Your task to perform on an android device: Google the capital of Colombia Image 0: 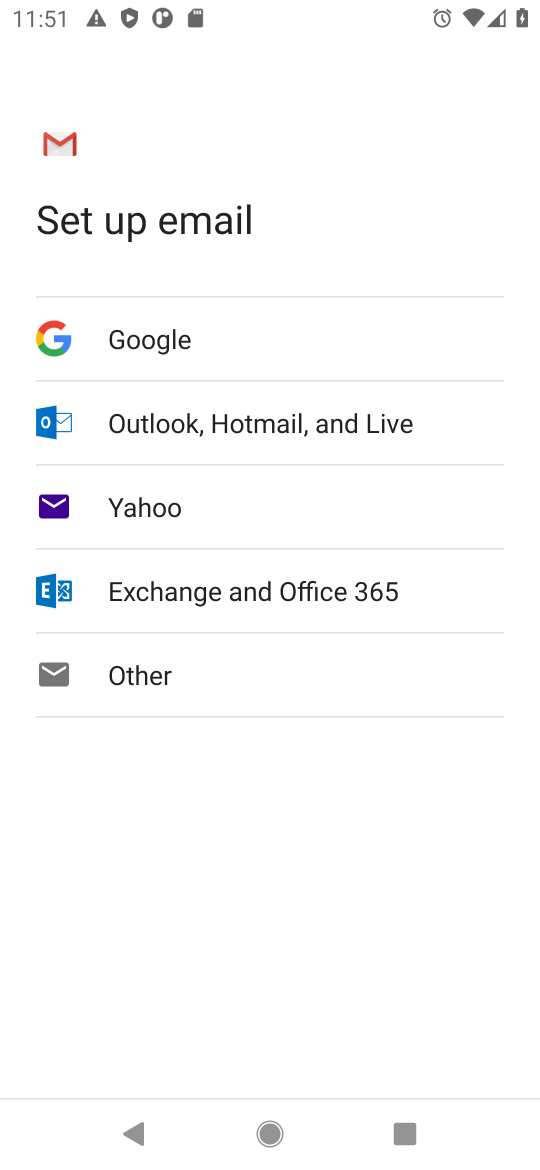
Step 0: press home button
Your task to perform on an android device: Google the capital of Colombia Image 1: 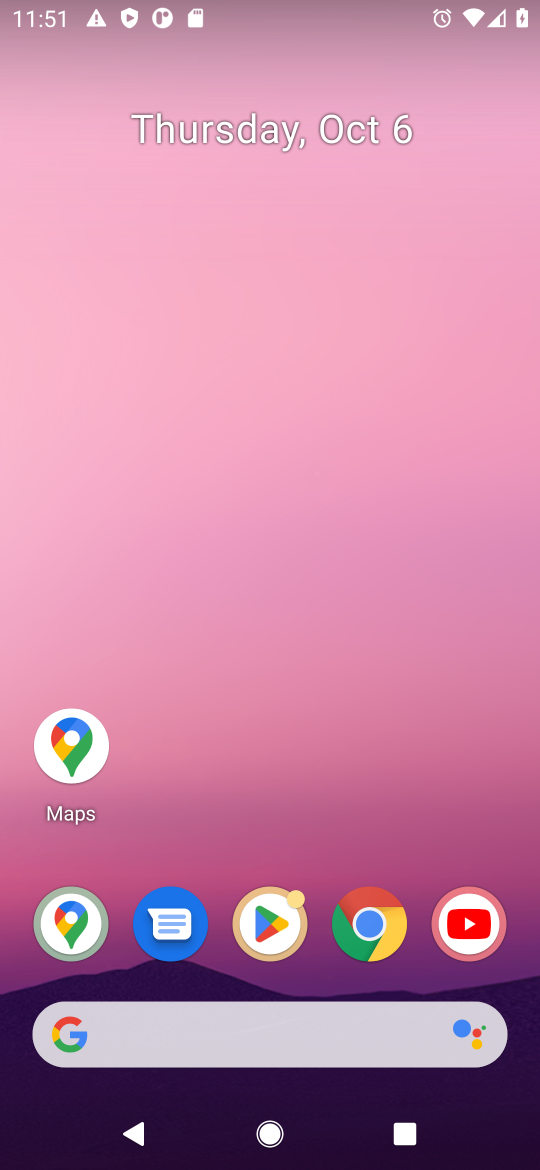
Step 1: click (364, 942)
Your task to perform on an android device: Google the capital of Colombia Image 2: 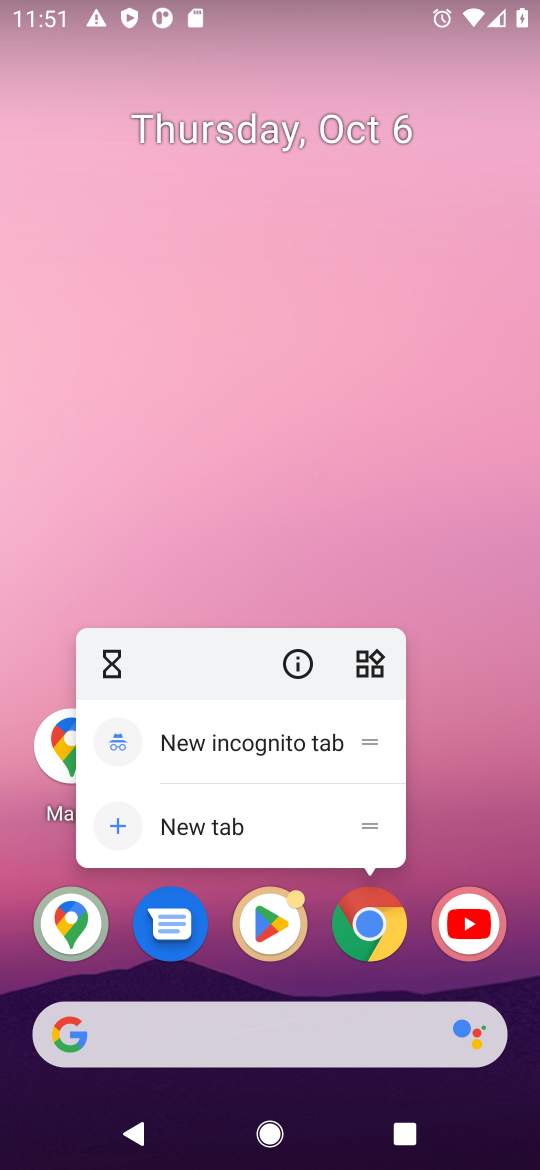
Step 2: click (362, 925)
Your task to perform on an android device: Google the capital of Colombia Image 3: 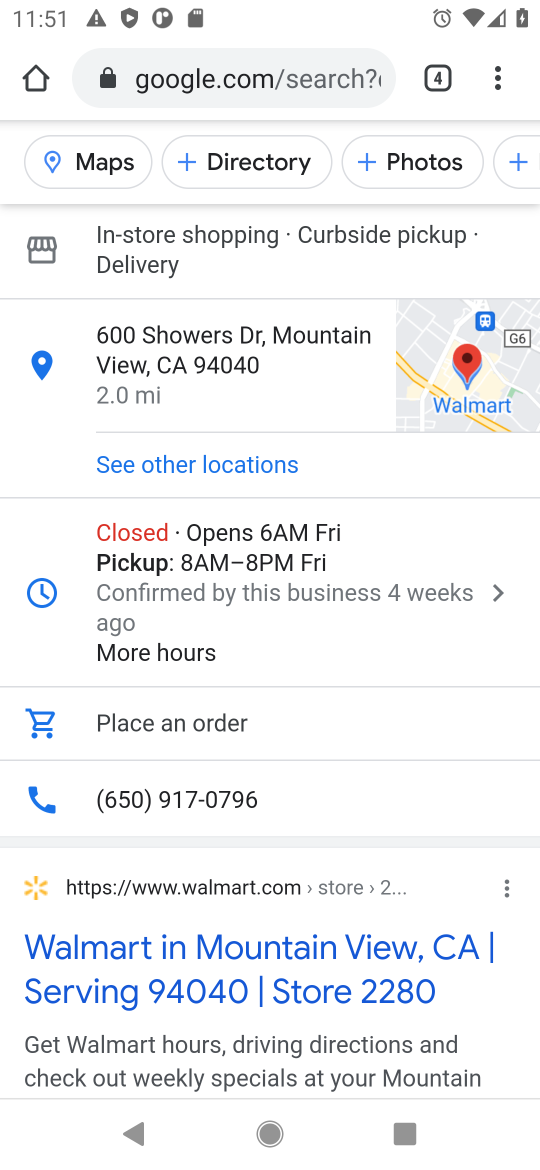
Step 3: click (328, 71)
Your task to perform on an android device: Google the capital of Colombia Image 4: 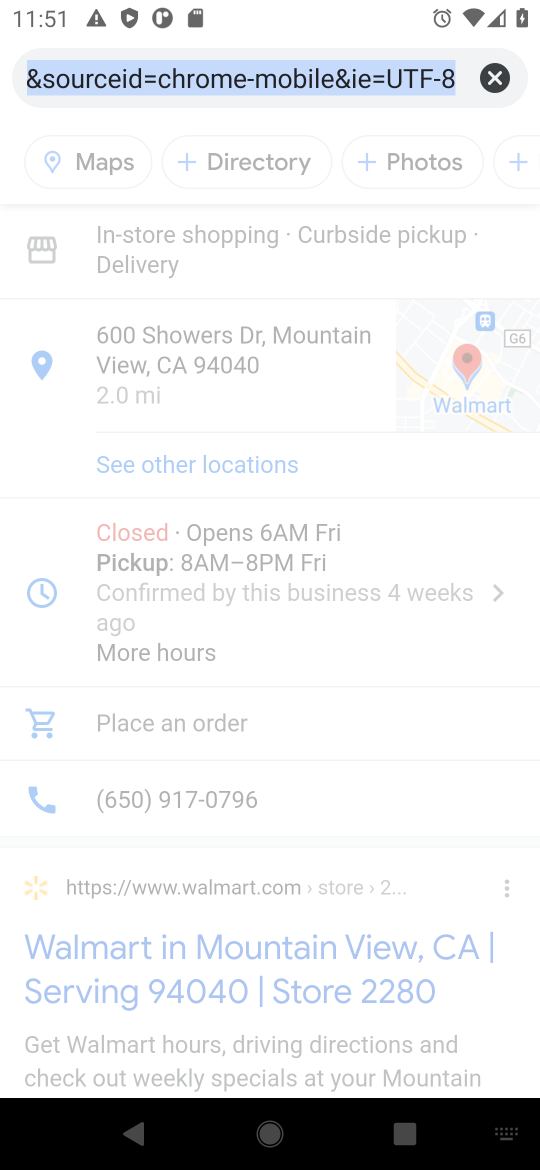
Step 4: click (498, 77)
Your task to perform on an android device: Google the capital of Colombia Image 5: 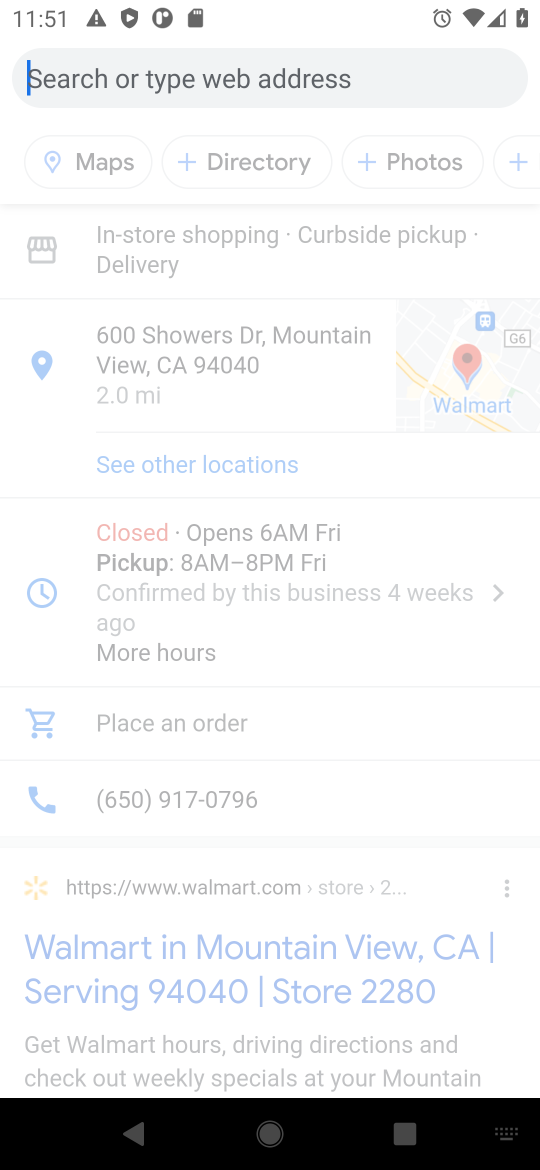
Step 5: type " capital of Colombia"
Your task to perform on an android device: Google the capital of Colombia Image 6: 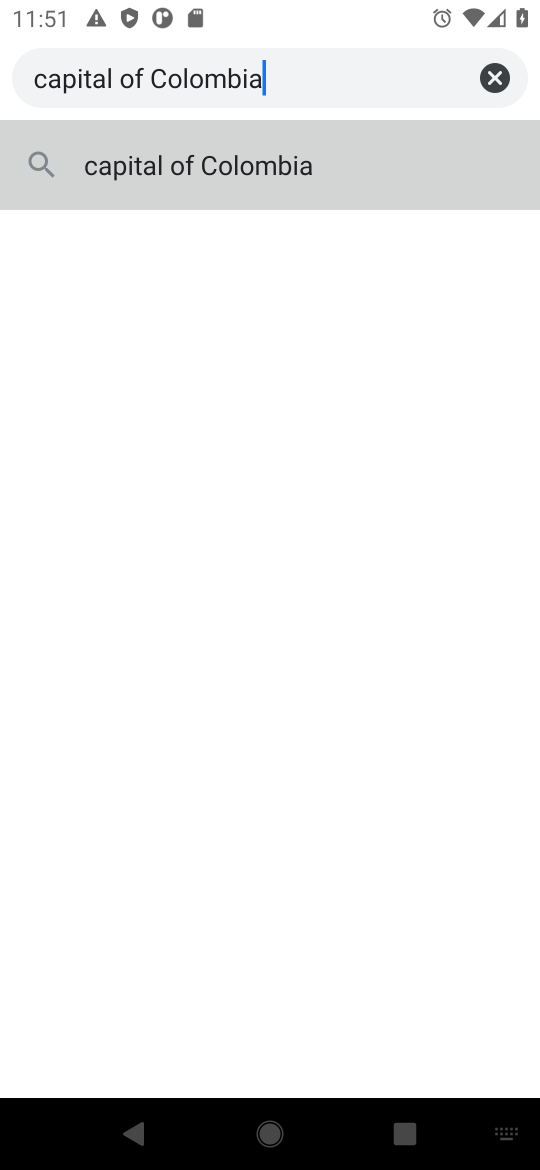
Step 6: click (253, 158)
Your task to perform on an android device: Google the capital of Colombia Image 7: 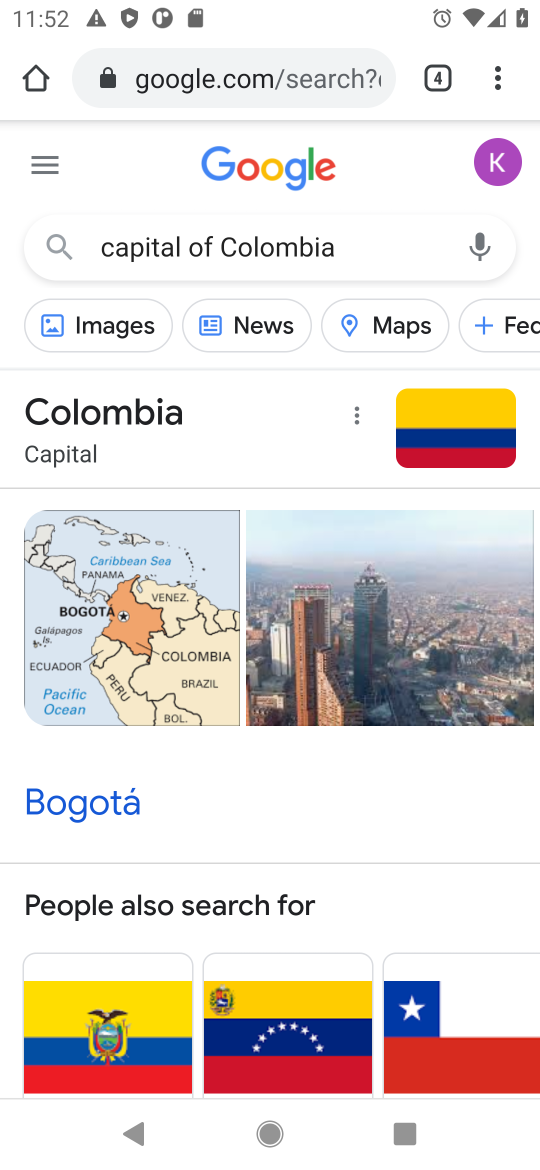
Step 7: task complete